Your task to perform on an android device: Open the calendar and show me this week's events Image 0: 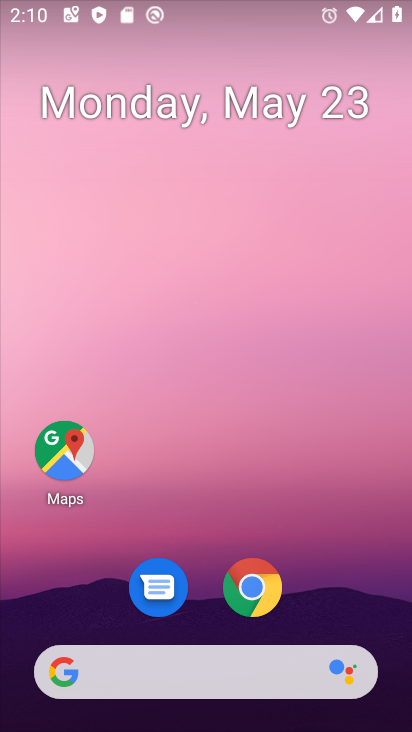
Step 0: drag from (350, 596) to (331, 132)
Your task to perform on an android device: Open the calendar and show me this week's events Image 1: 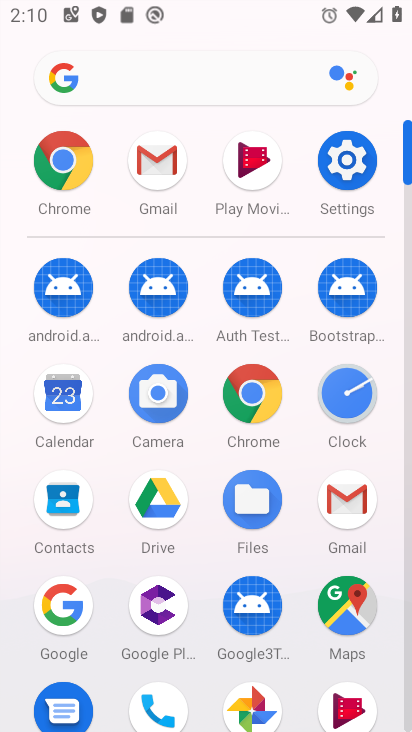
Step 1: click (83, 396)
Your task to perform on an android device: Open the calendar and show me this week's events Image 2: 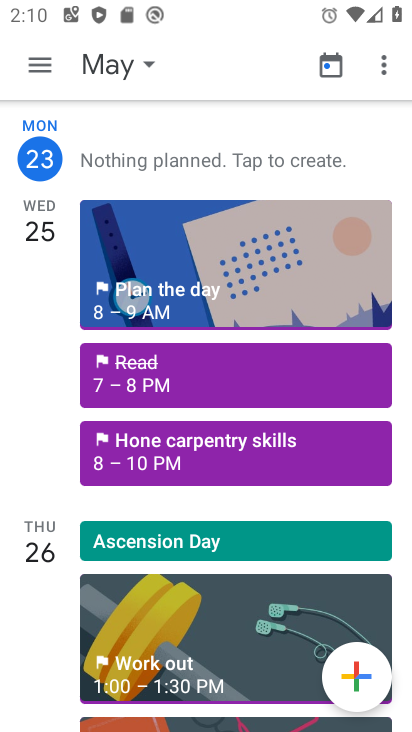
Step 2: click (140, 42)
Your task to perform on an android device: Open the calendar and show me this week's events Image 3: 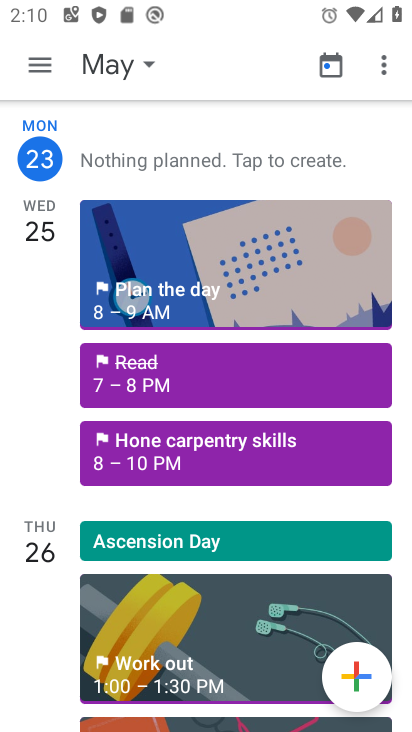
Step 3: click (45, 64)
Your task to perform on an android device: Open the calendar and show me this week's events Image 4: 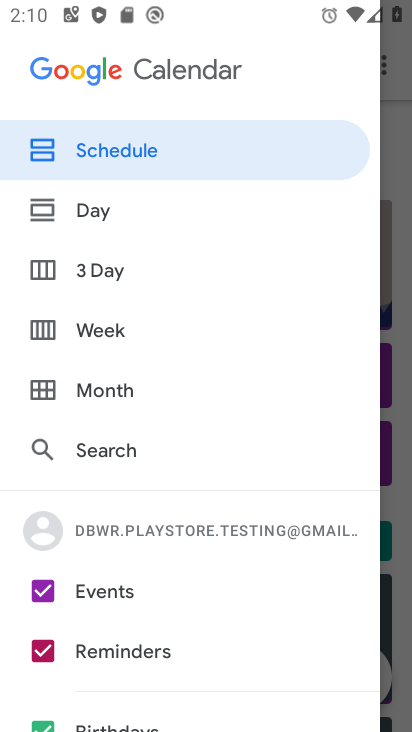
Step 4: click (97, 322)
Your task to perform on an android device: Open the calendar and show me this week's events Image 5: 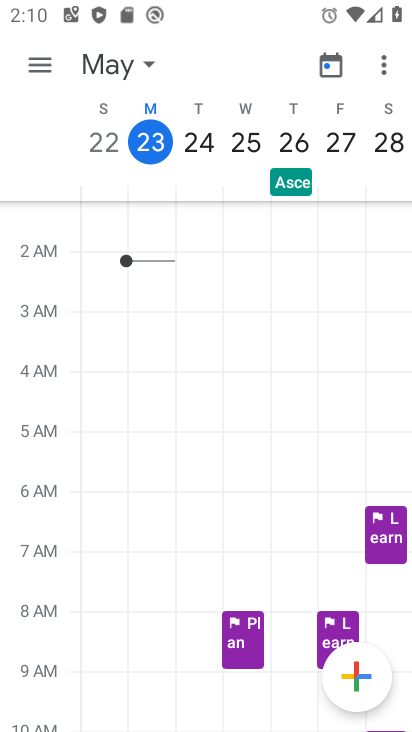
Step 5: task complete